Your task to perform on an android device: What's the weather going to be this weekend? Image 0: 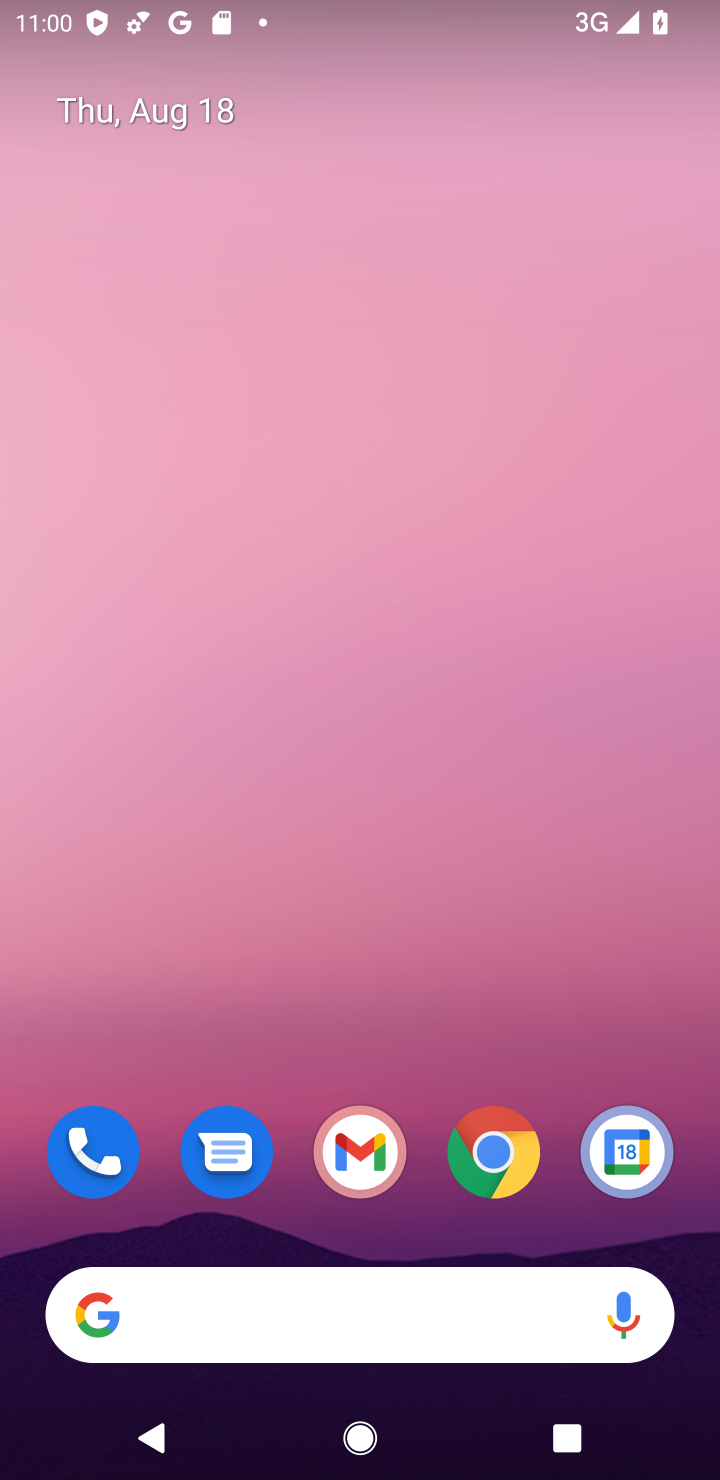
Step 0: click (479, 1284)
Your task to perform on an android device: What's the weather going to be this weekend? Image 1: 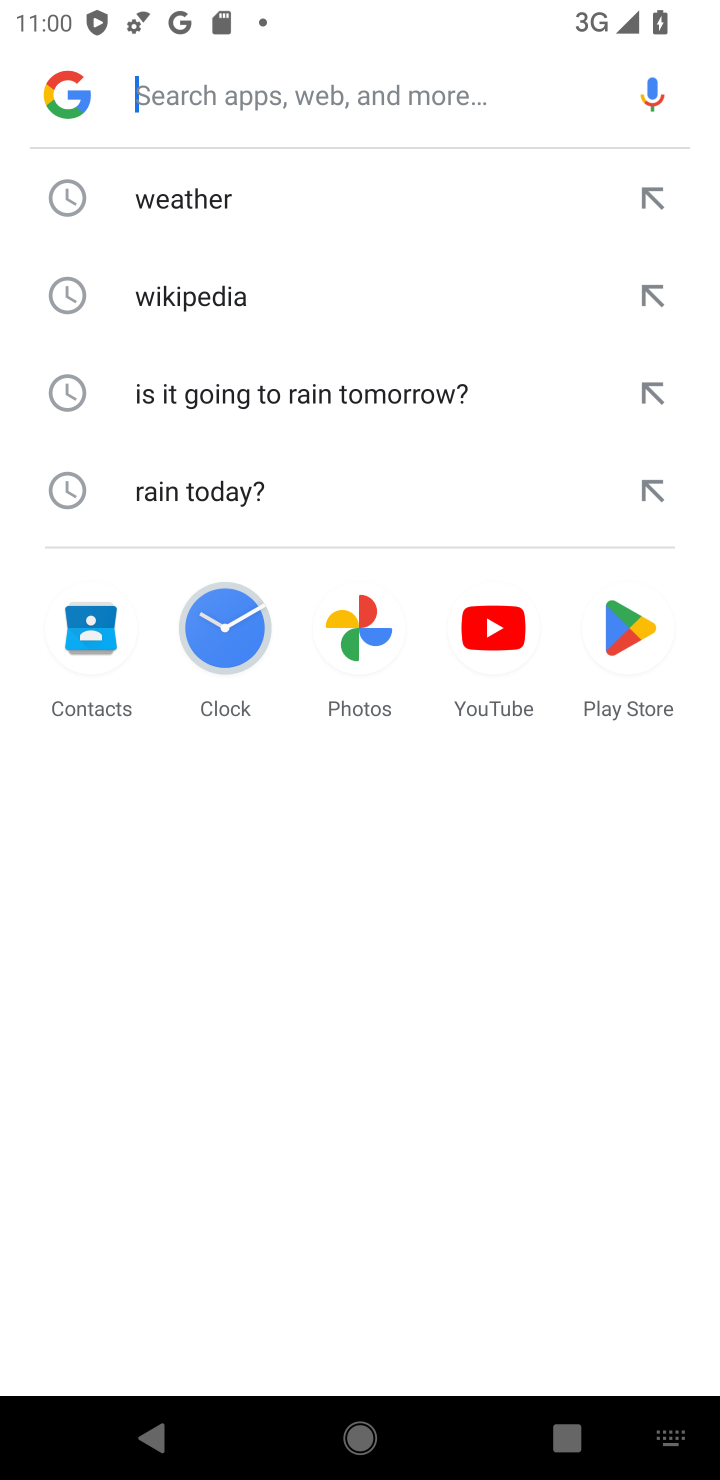
Step 1: click (190, 201)
Your task to perform on an android device: What's the weather going to be this weekend? Image 2: 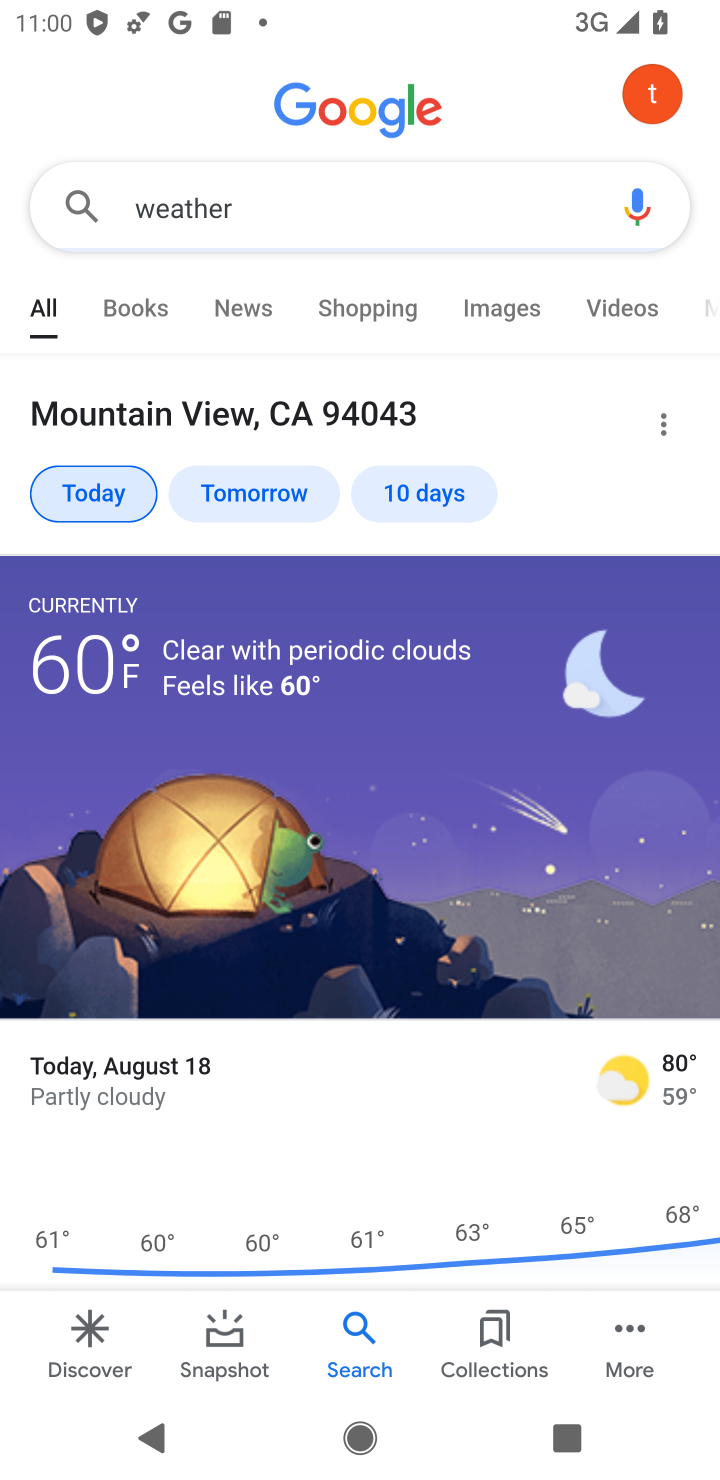
Step 2: click (465, 490)
Your task to perform on an android device: What's the weather going to be this weekend? Image 3: 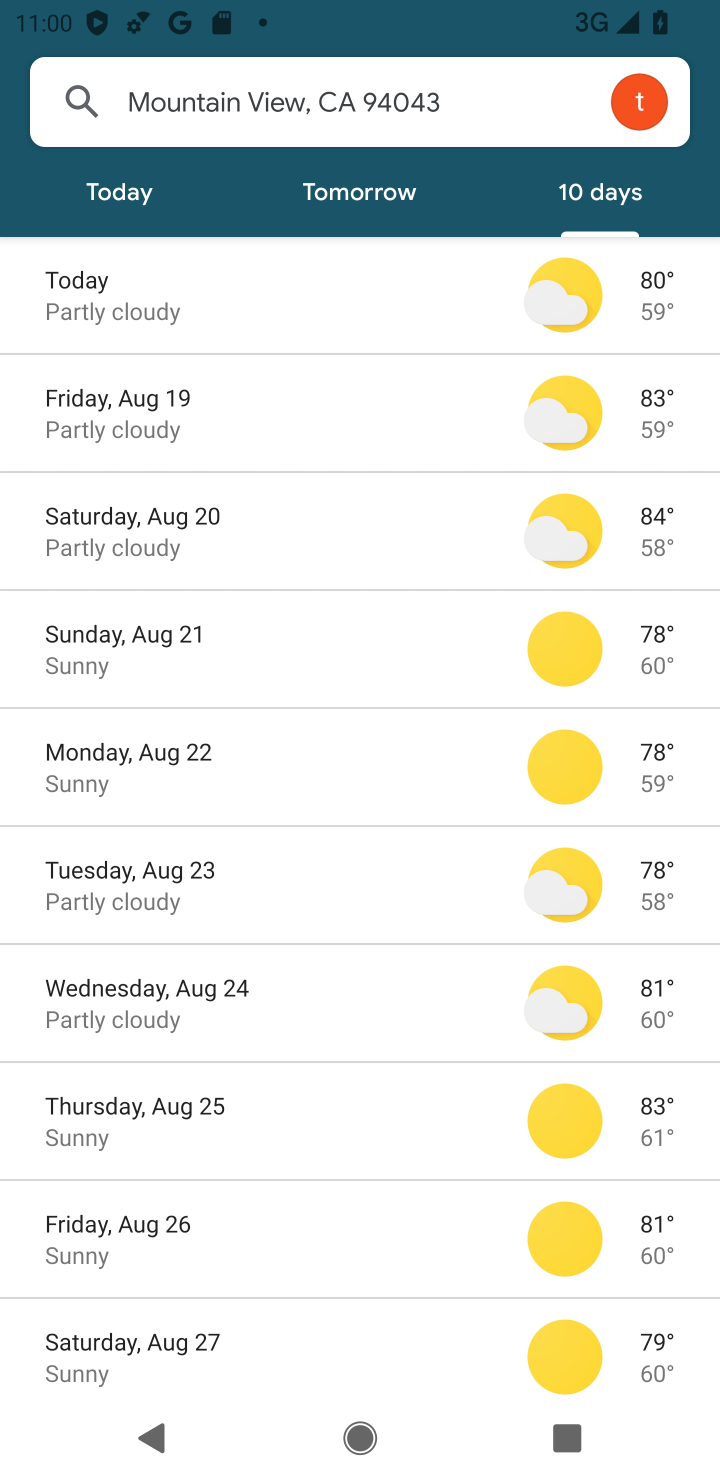
Step 3: click (253, 542)
Your task to perform on an android device: What's the weather going to be this weekend? Image 4: 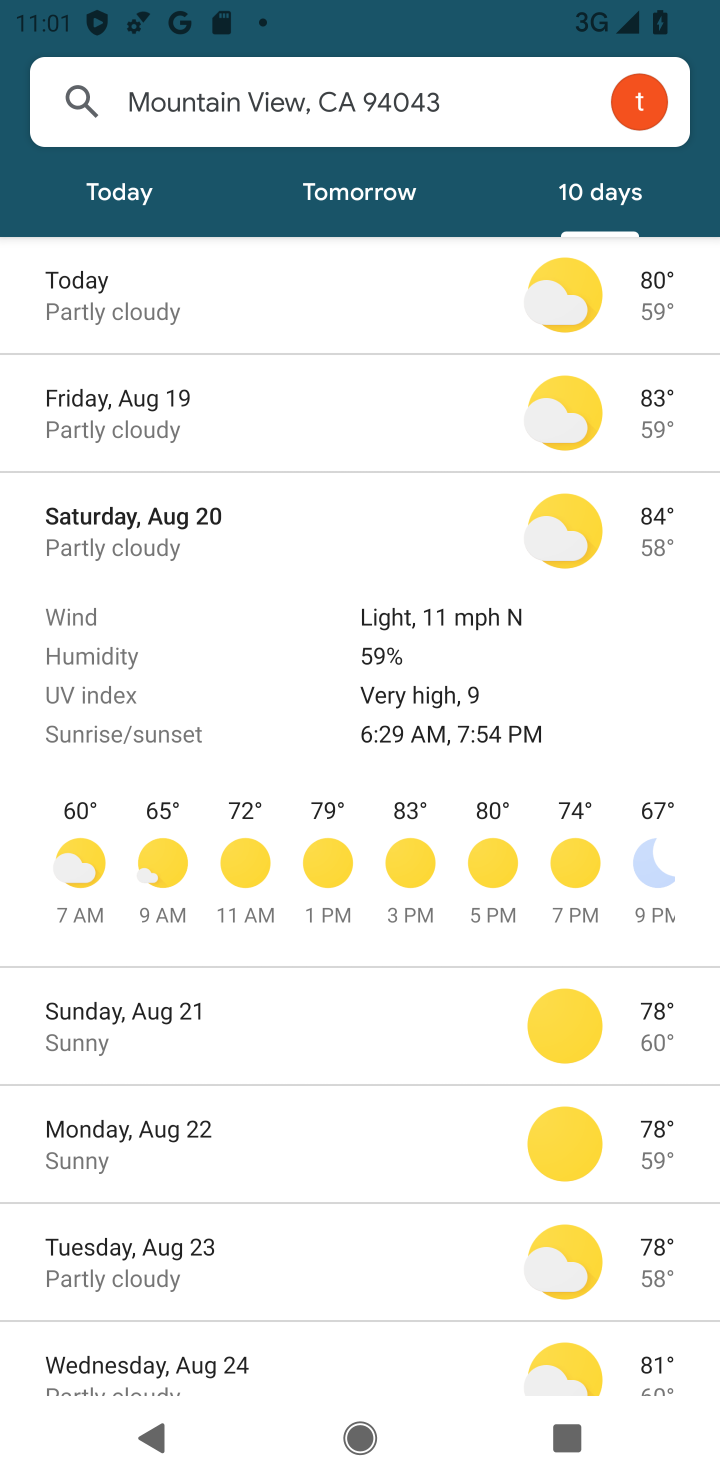
Step 4: task complete